Your task to perform on an android device: stop showing notifications on the lock screen Image 0: 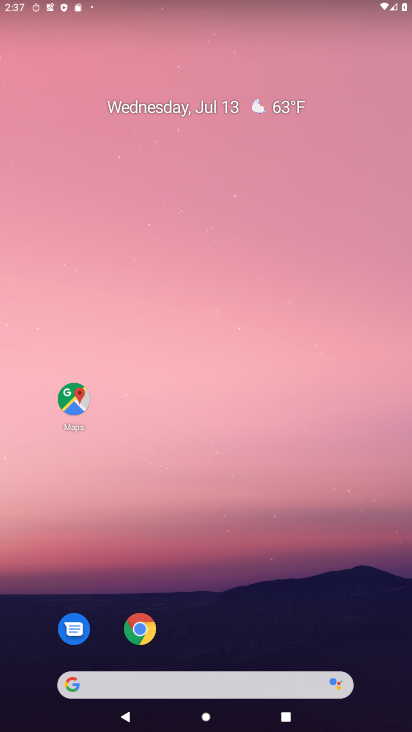
Step 0: drag from (218, 601) to (216, 269)
Your task to perform on an android device: stop showing notifications on the lock screen Image 1: 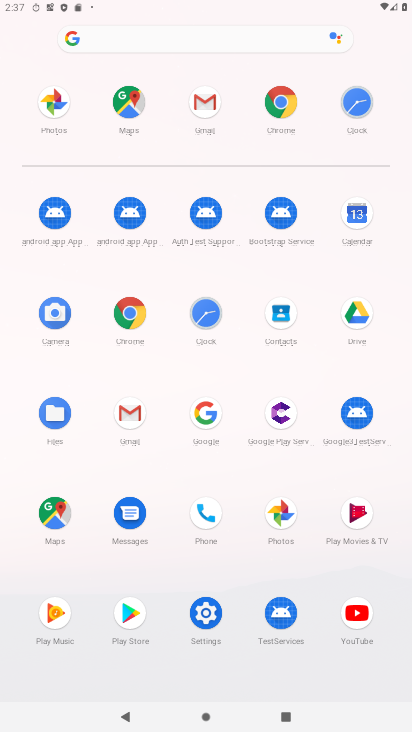
Step 1: click (200, 610)
Your task to perform on an android device: stop showing notifications on the lock screen Image 2: 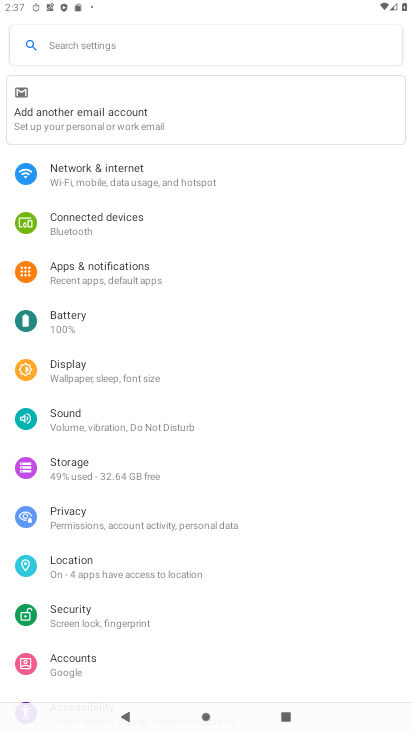
Step 2: click (97, 261)
Your task to perform on an android device: stop showing notifications on the lock screen Image 3: 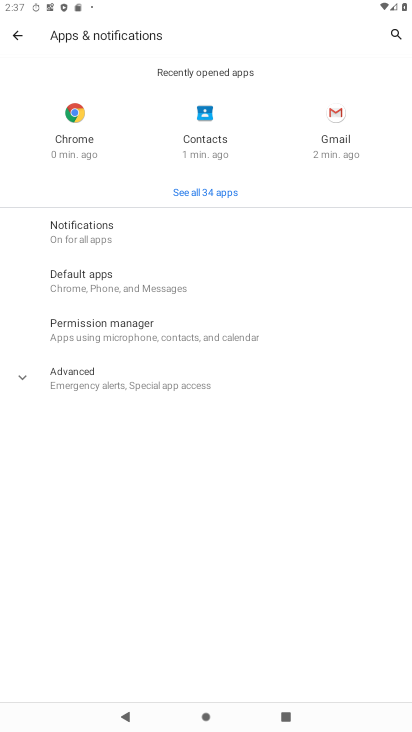
Step 3: click (62, 242)
Your task to perform on an android device: stop showing notifications on the lock screen Image 4: 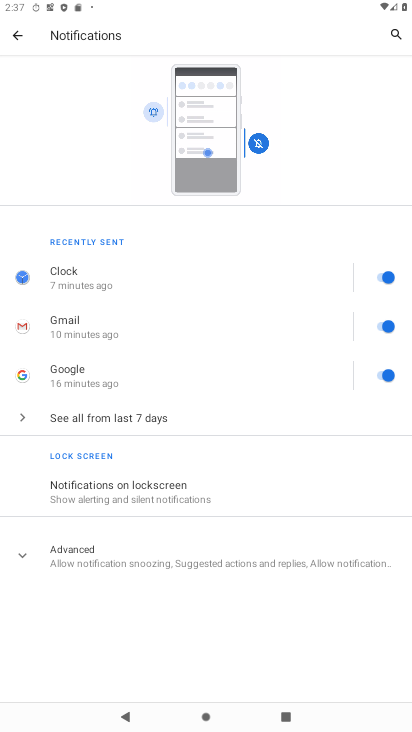
Step 4: click (105, 501)
Your task to perform on an android device: stop showing notifications on the lock screen Image 5: 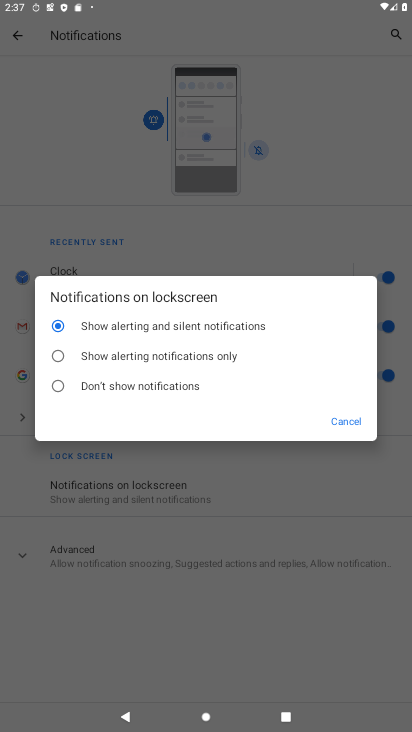
Step 5: click (90, 386)
Your task to perform on an android device: stop showing notifications on the lock screen Image 6: 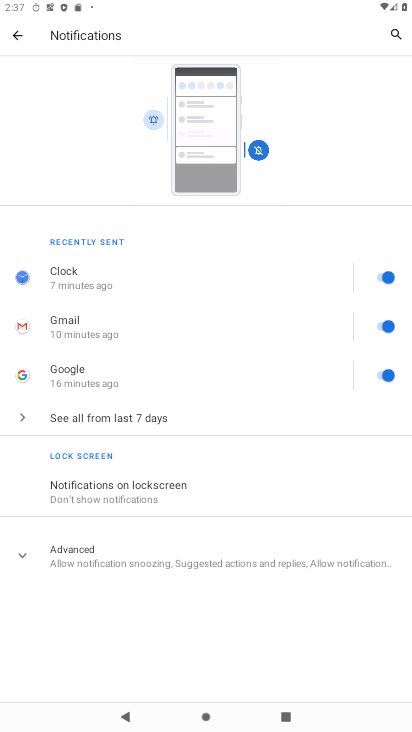
Step 6: task complete